Your task to perform on an android device: Open Google Maps Image 0: 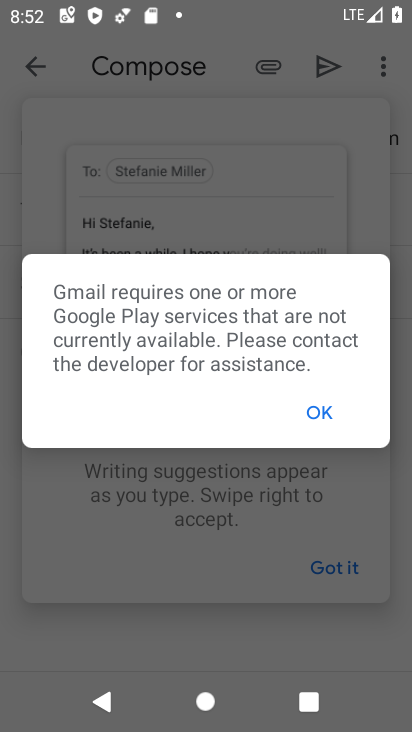
Step 0: press home button
Your task to perform on an android device: Open Google Maps Image 1: 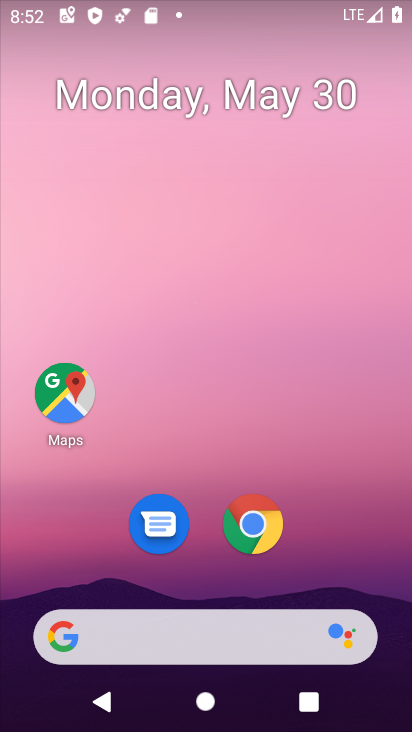
Step 1: click (46, 412)
Your task to perform on an android device: Open Google Maps Image 2: 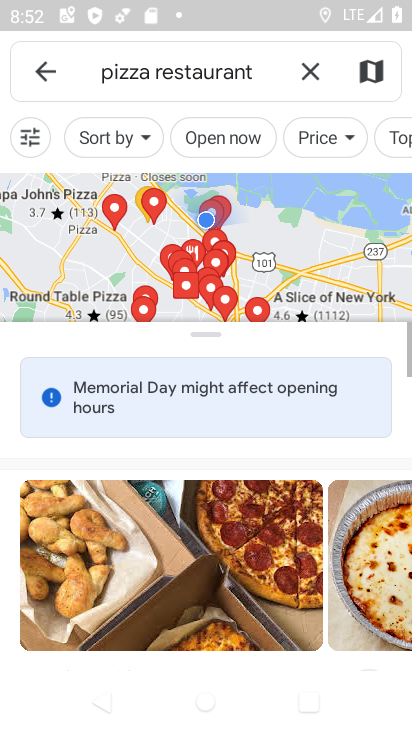
Step 2: click (310, 76)
Your task to perform on an android device: Open Google Maps Image 3: 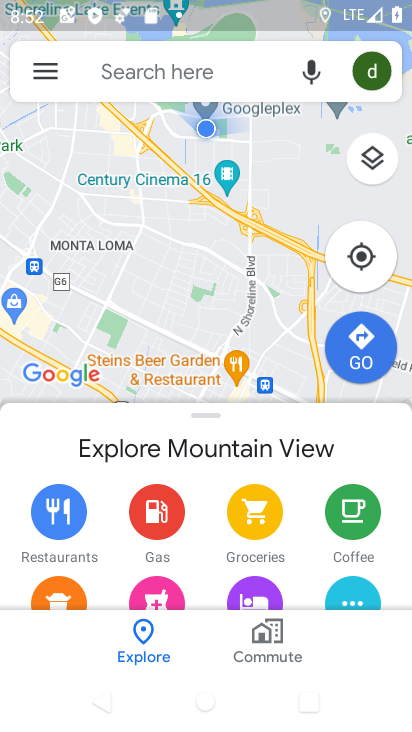
Step 3: task complete